Your task to perform on an android device: turn off data saver in the chrome app Image 0: 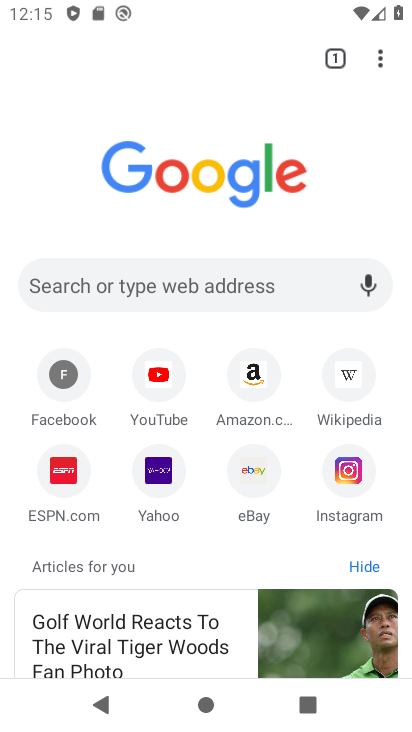
Step 0: click (384, 57)
Your task to perform on an android device: turn off data saver in the chrome app Image 1: 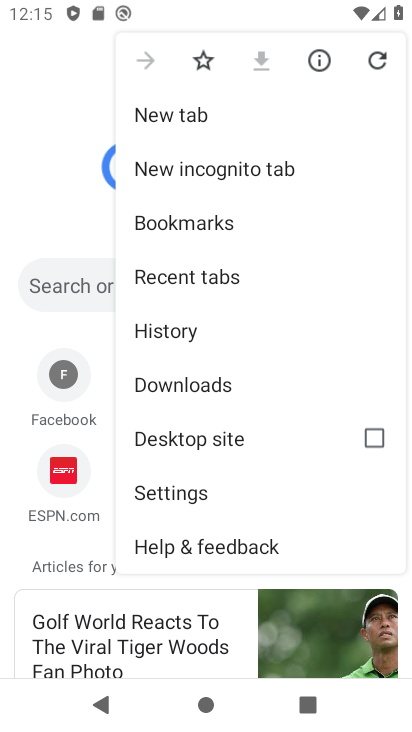
Step 1: click (204, 478)
Your task to perform on an android device: turn off data saver in the chrome app Image 2: 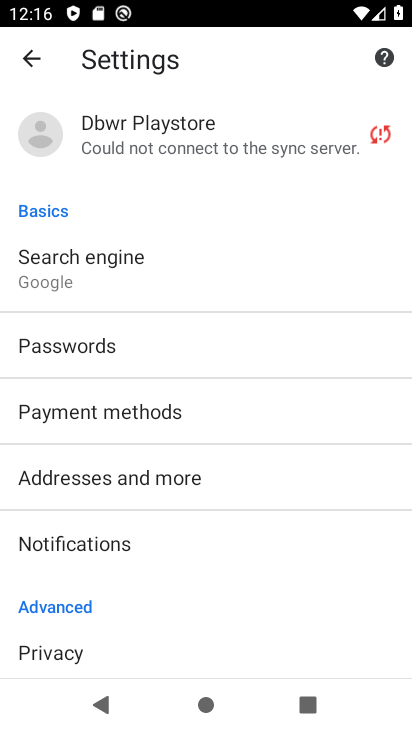
Step 2: drag from (166, 626) to (174, 519)
Your task to perform on an android device: turn off data saver in the chrome app Image 3: 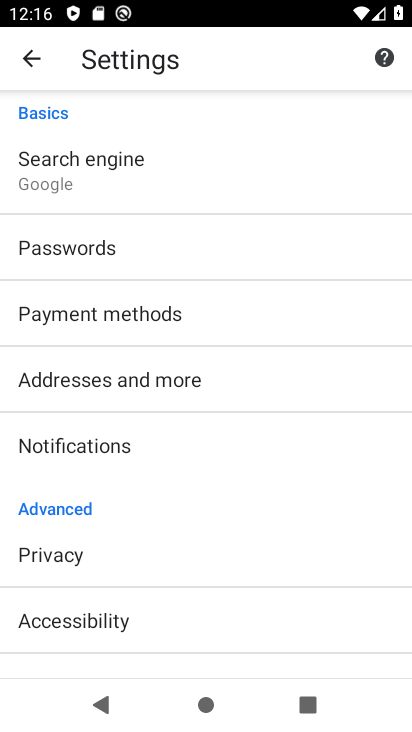
Step 3: drag from (185, 583) to (208, 355)
Your task to perform on an android device: turn off data saver in the chrome app Image 4: 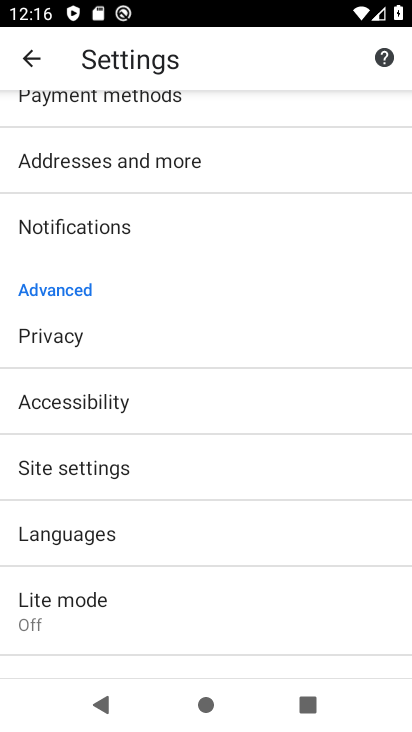
Step 4: click (144, 591)
Your task to perform on an android device: turn off data saver in the chrome app Image 5: 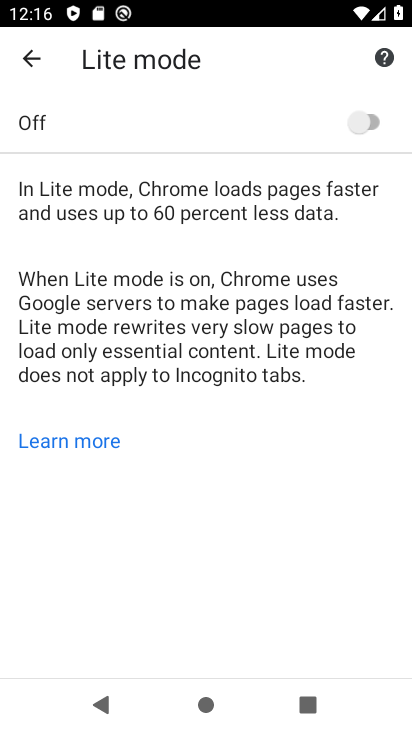
Step 5: click (344, 120)
Your task to perform on an android device: turn off data saver in the chrome app Image 6: 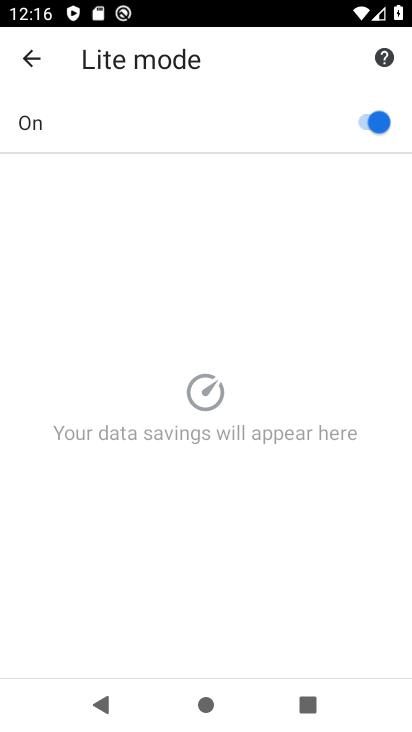
Step 6: task complete